Your task to perform on an android device: set default search engine in the chrome app Image 0: 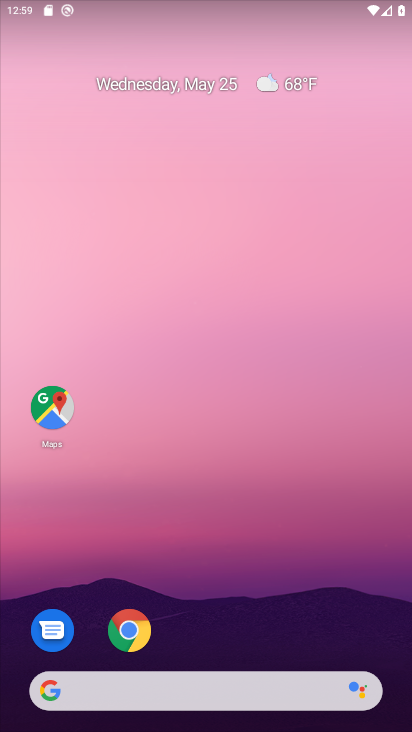
Step 0: click (140, 616)
Your task to perform on an android device: set default search engine in the chrome app Image 1: 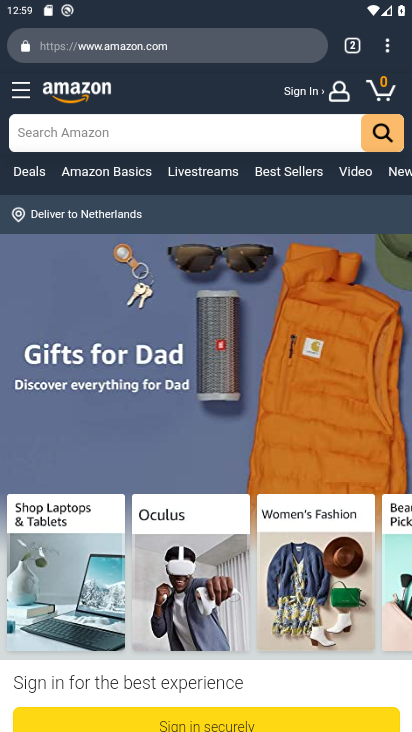
Step 1: drag from (384, 41) to (230, 545)
Your task to perform on an android device: set default search engine in the chrome app Image 2: 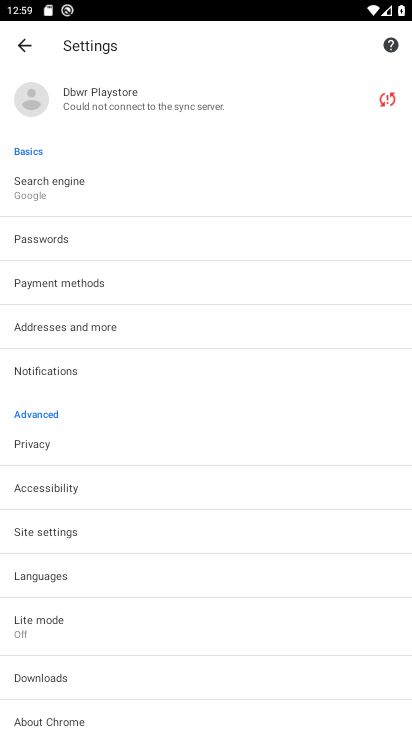
Step 2: click (63, 199)
Your task to perform on an android device: set default search engine in the chrome app Image 3: 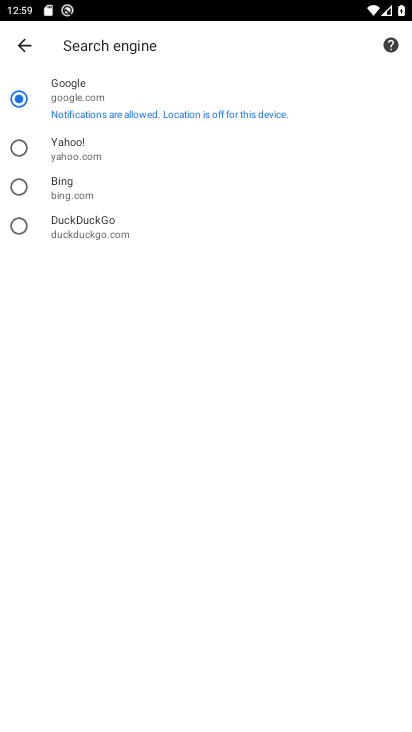
Step 3: click (50, 154)
Your task to perform on an android device: set default search engine in the chrome app Image 4: 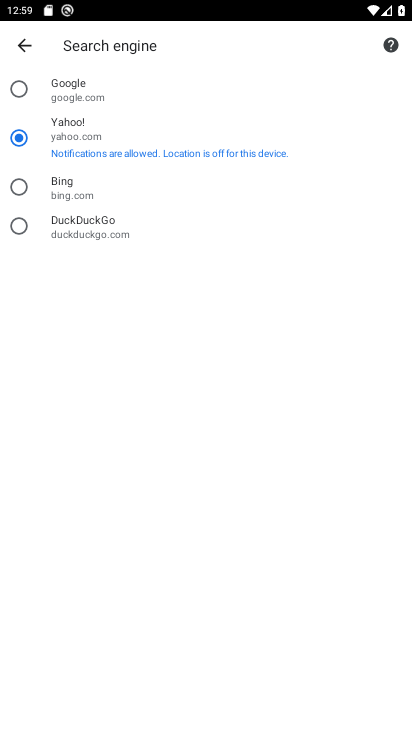
Step 4: task complete